Your task to perform on an android device: turn on translation in the chrome app Image 0: 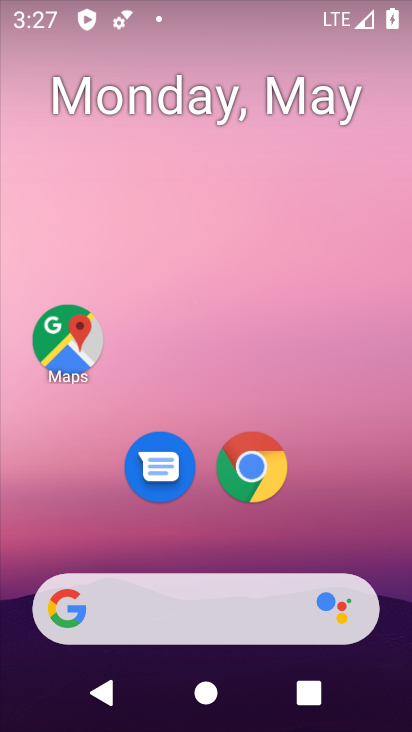
Step 0: click (252, 467)
Your task to perform on an android device: turn on translation in the chrome app Image 1: 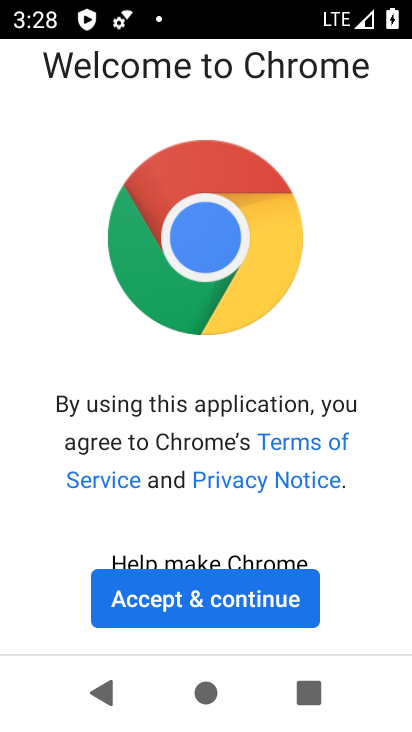
Step 1: click (251, 598)
Your task to perform on an android device: turn on translation in the chrome app Image 2: 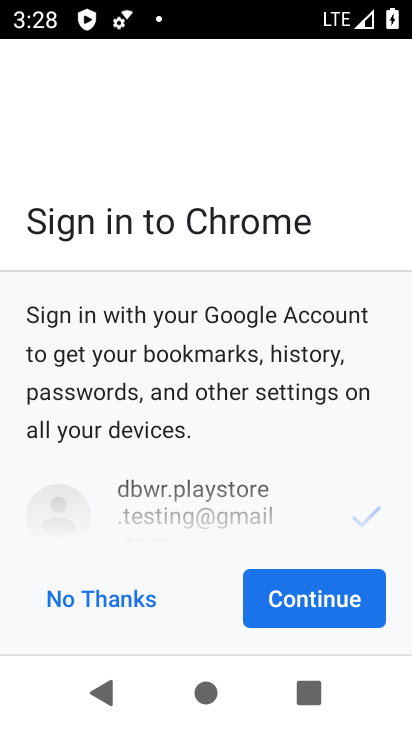
Step 2: click (316, 591)
Your task to perform on an android device: turn on translation in the chrome app Image 3: 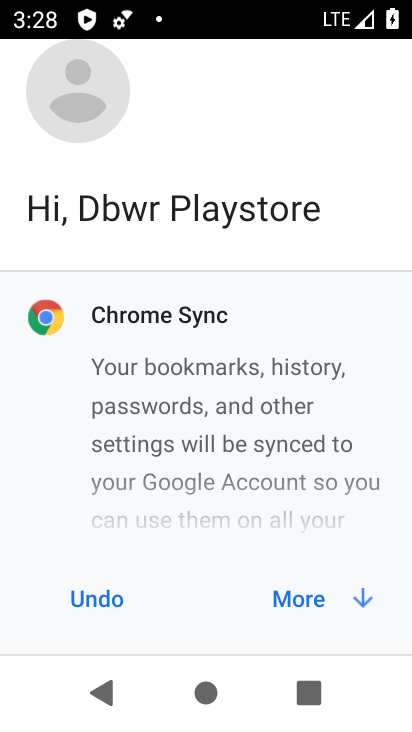
Step 3: click (310, 599)
Your task to perform on an android device: turn on translation in the chrome app Image 4: 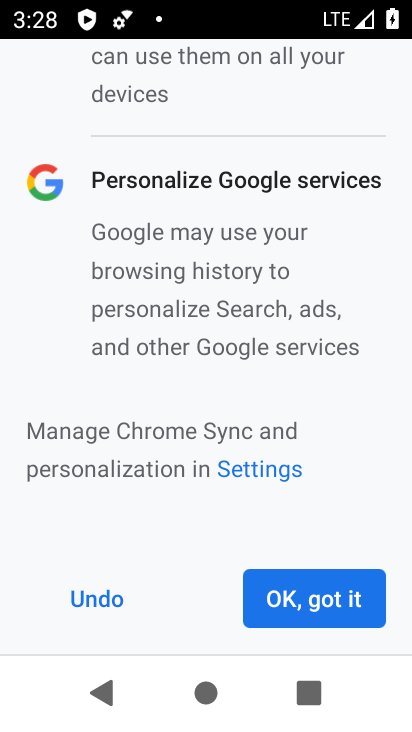
Step 4: click (298, 590)
Your task to perform on an android device: turn on translation in the chrome app Image 5: 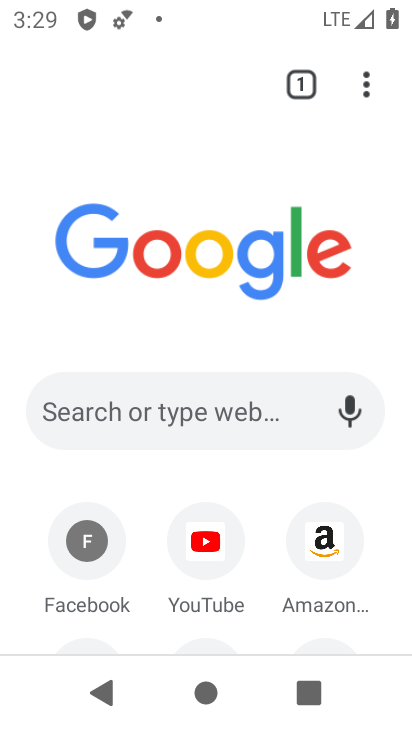
Step 5: click (367, 82)
Your task to perform on an android device: turn on translation in the chrome app Image 6: 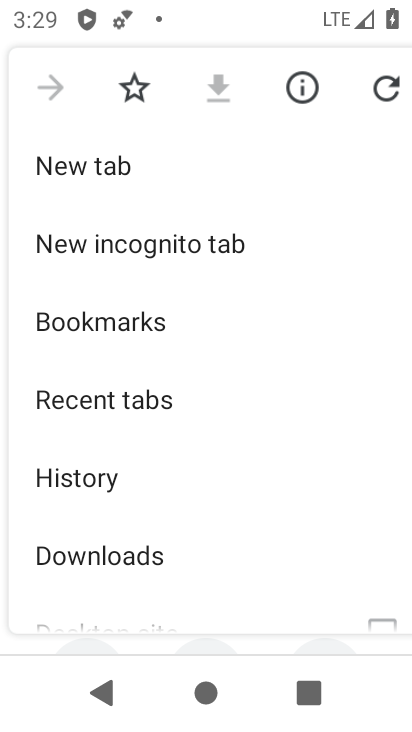
Step 6: drag from (157, 559) to (213, 312)
Your task to perform on an android device: turn on translation in the chrome app Image 7: 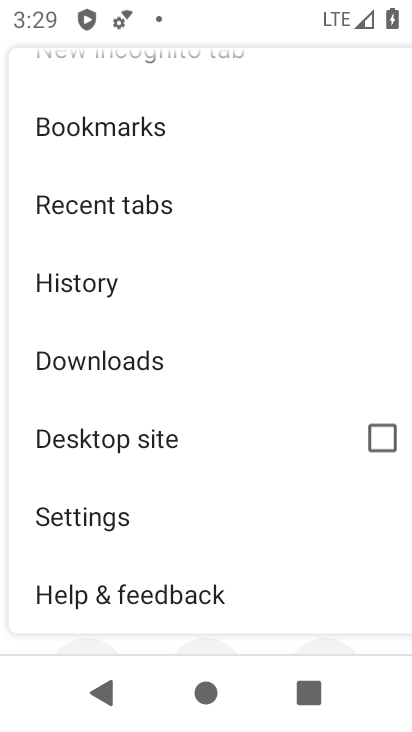
Step 7: click (111, 526)
Your task to perform on an android device: turn on translation in the chrome app Image 8: 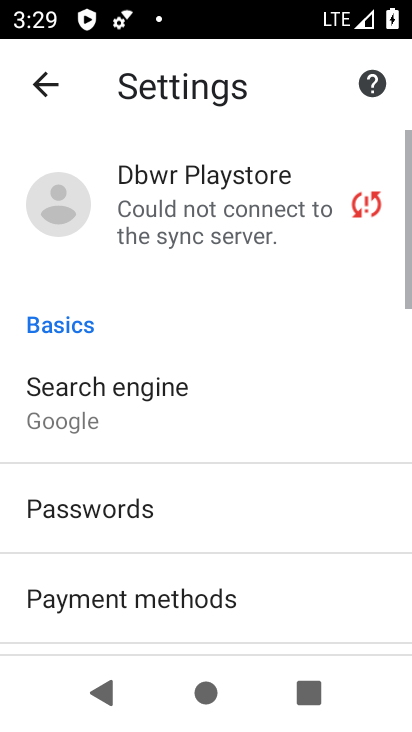
Step 8: drag from (114, 576) to (261, 243)
Your task to perform on an android device: turn on translation in the chrome app Image 9: 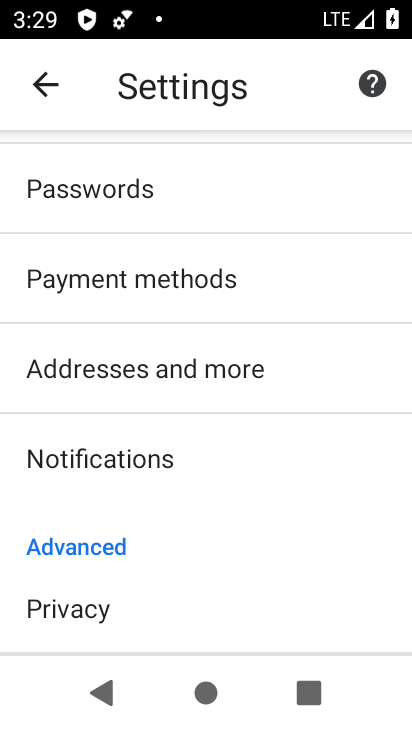
Step 9: drag from (136, 612) to (239, 349)
Your task to perform on an android device: turn on translation in the chrome app Image 10: 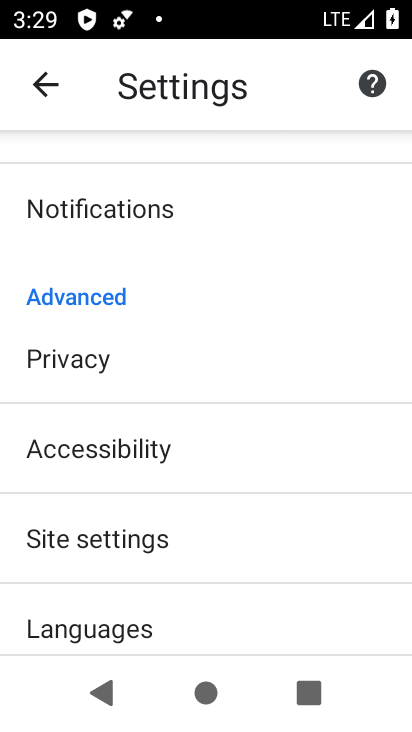
Step 10: click (89, 613)
Your task to perform on an android device: turn on translation in the chrome app Image 11: 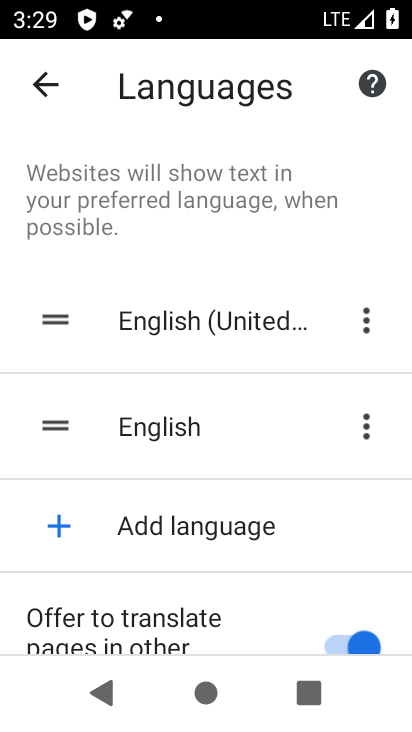
Step 11: task complete